Your task to perform on an android device: Search for the best lawnmowers on Lowes.com Image 0: 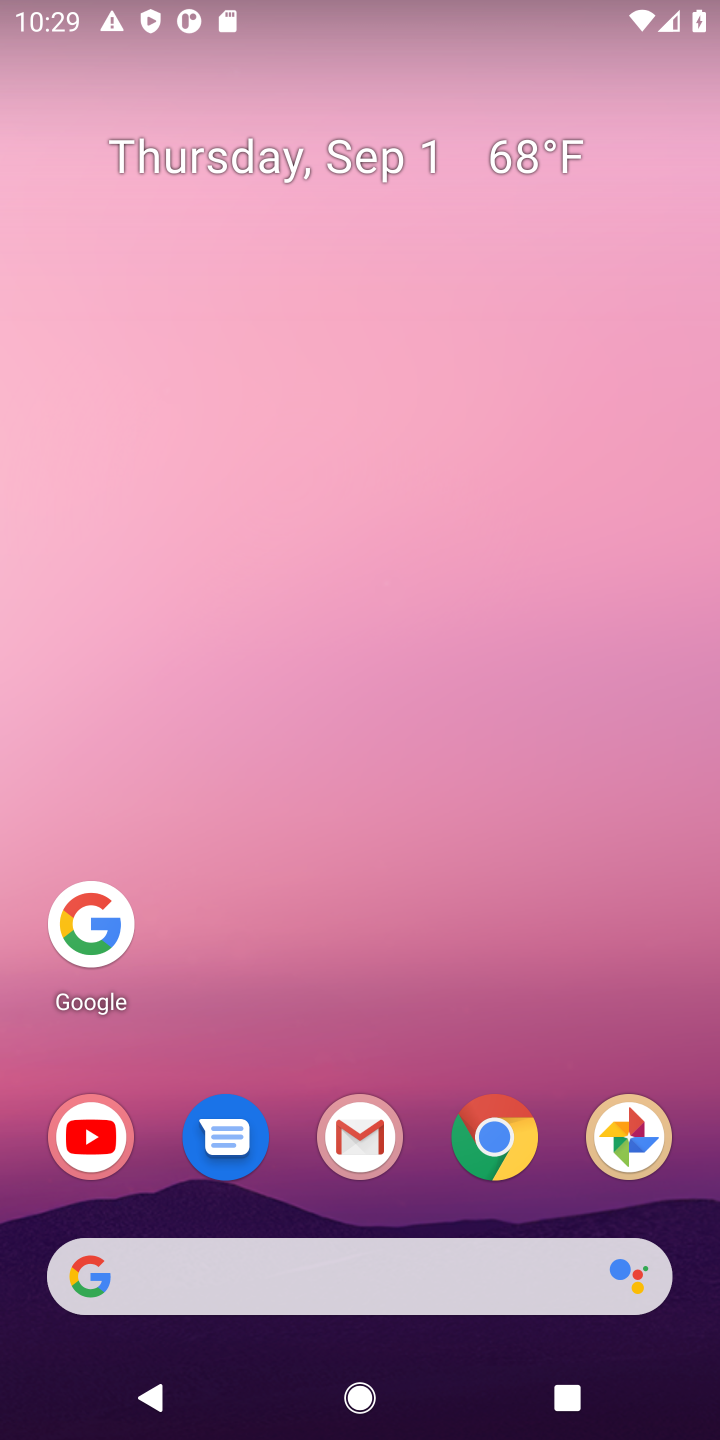
Step 0: click (328, 1275)
Your task to perform on an android device: Search for the best lawnmowers on Lowes.com Image 1: 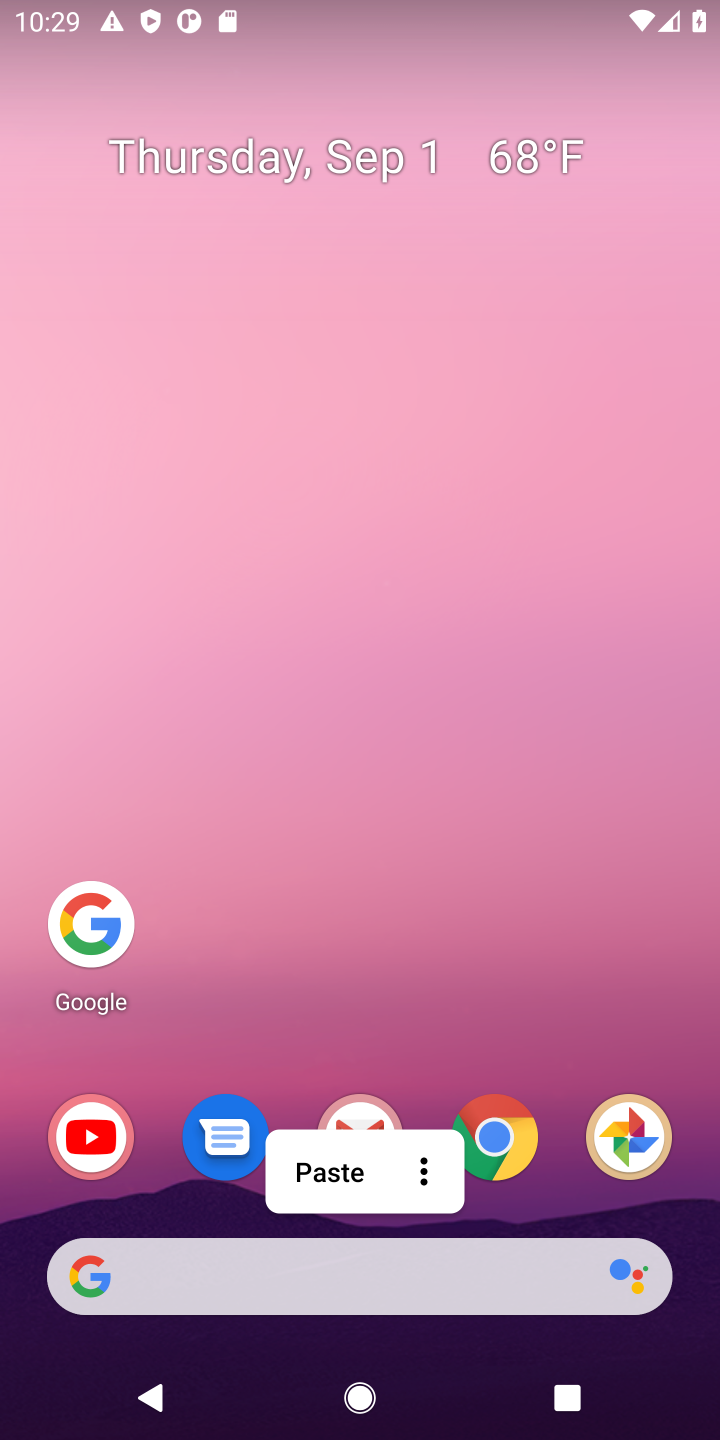
Step 1: click (197, 1246)
Your task to perform on an android device: Search for the best lawnmowers on Lowes.com Image 2: 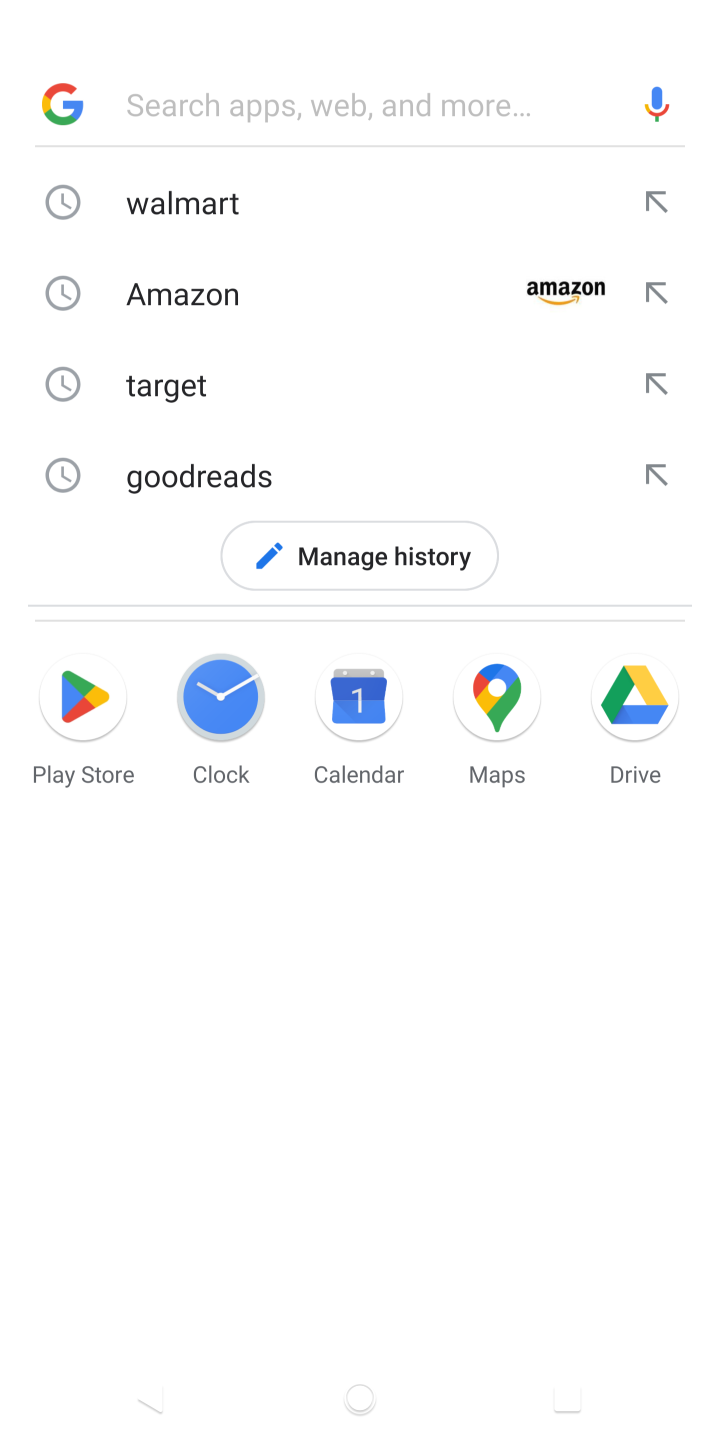
Step 2: click (89, 912)
Your task to perform on an android device: Search for the best lawnmowers on Lowes.com Image 3: 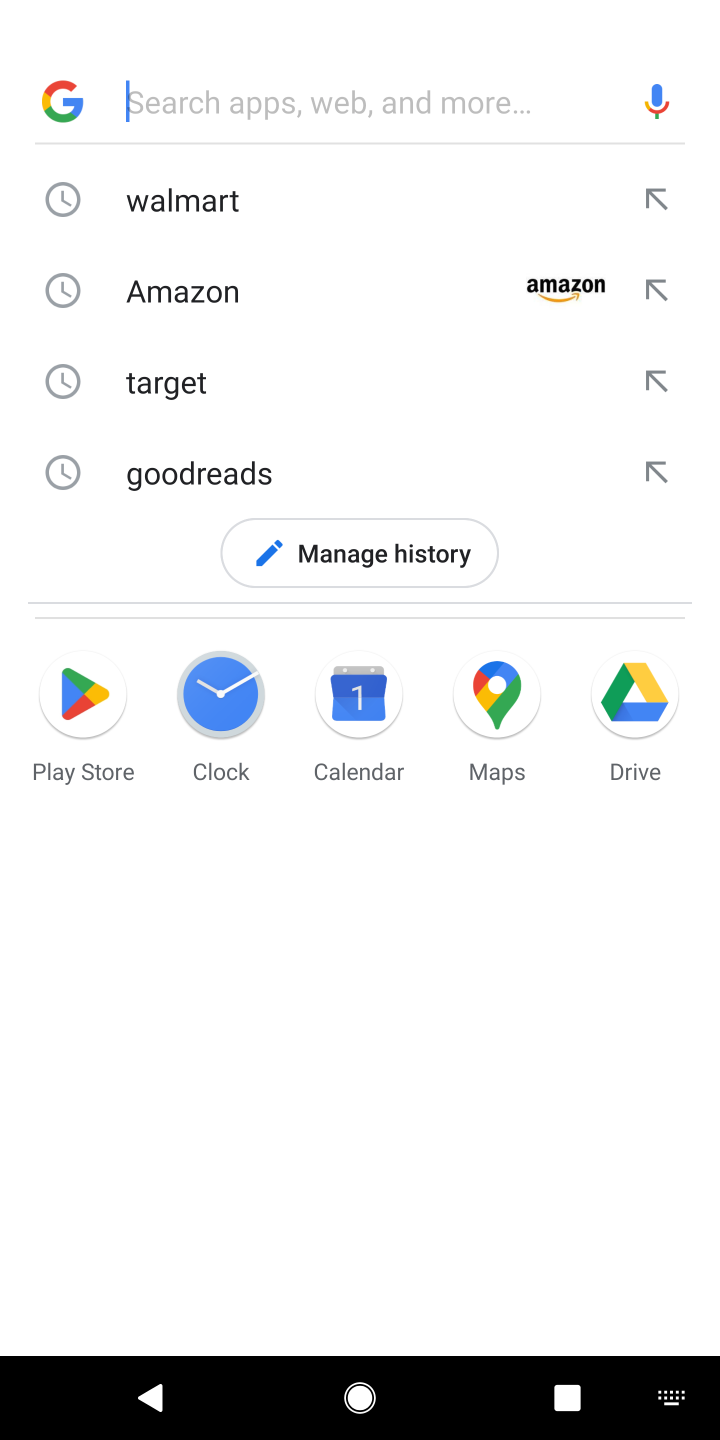
Step 3: click (205, 99)
Your task to perform on an android device: Search for the best lawnmowers on Lowes.com Image 4: 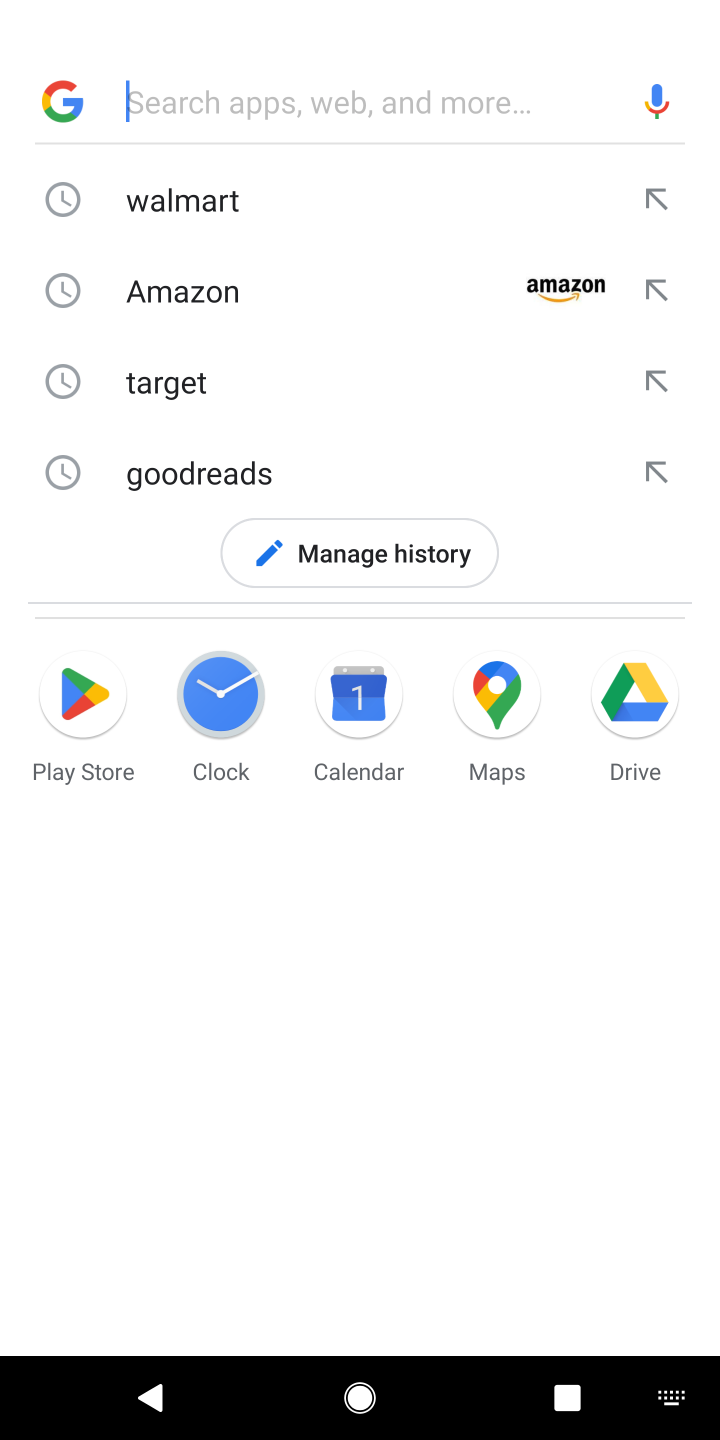
Step 4: type "lowes.com"
Your task to perform on an android device: Search for the best lawnmowers on Lowes.com Image 5: 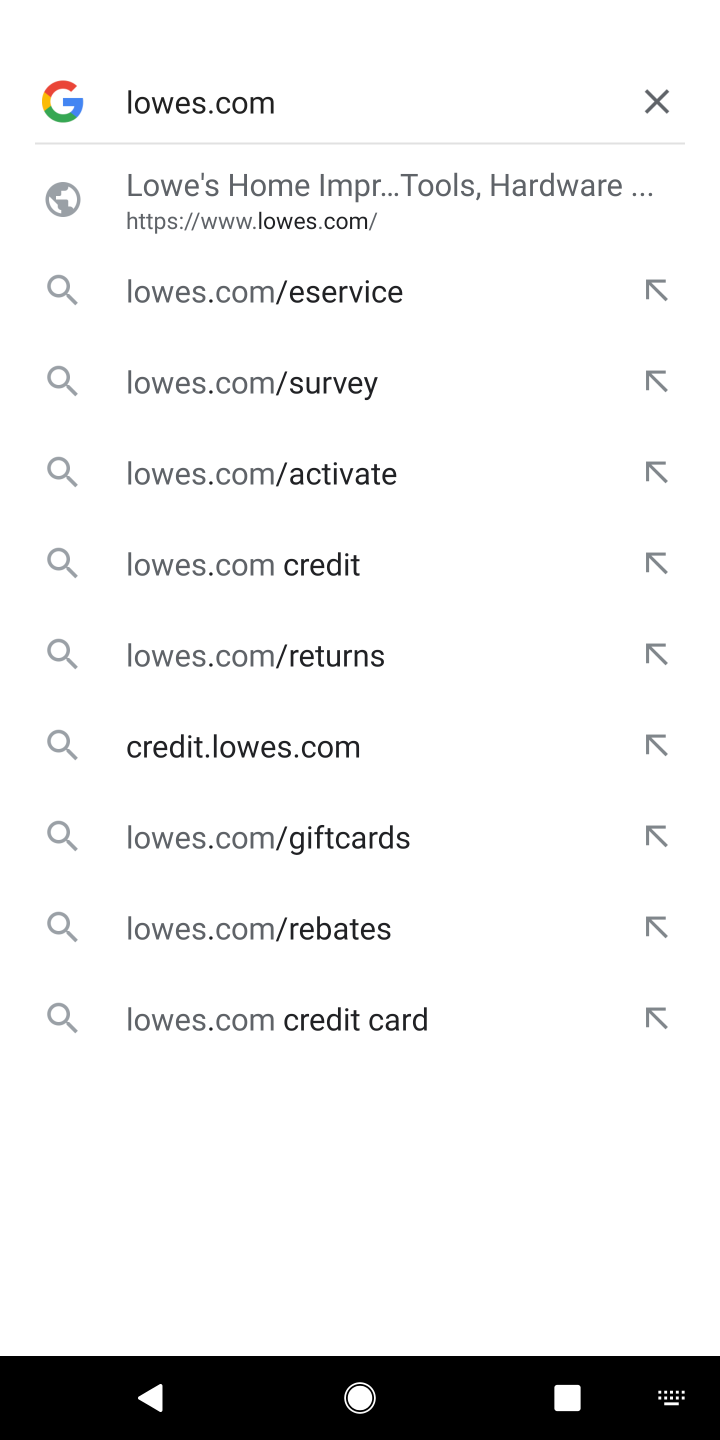
Step 5: click (236, 176)
Your task to perform on an android device: Search for the best lawnmowers on Lowes.com Image 6: 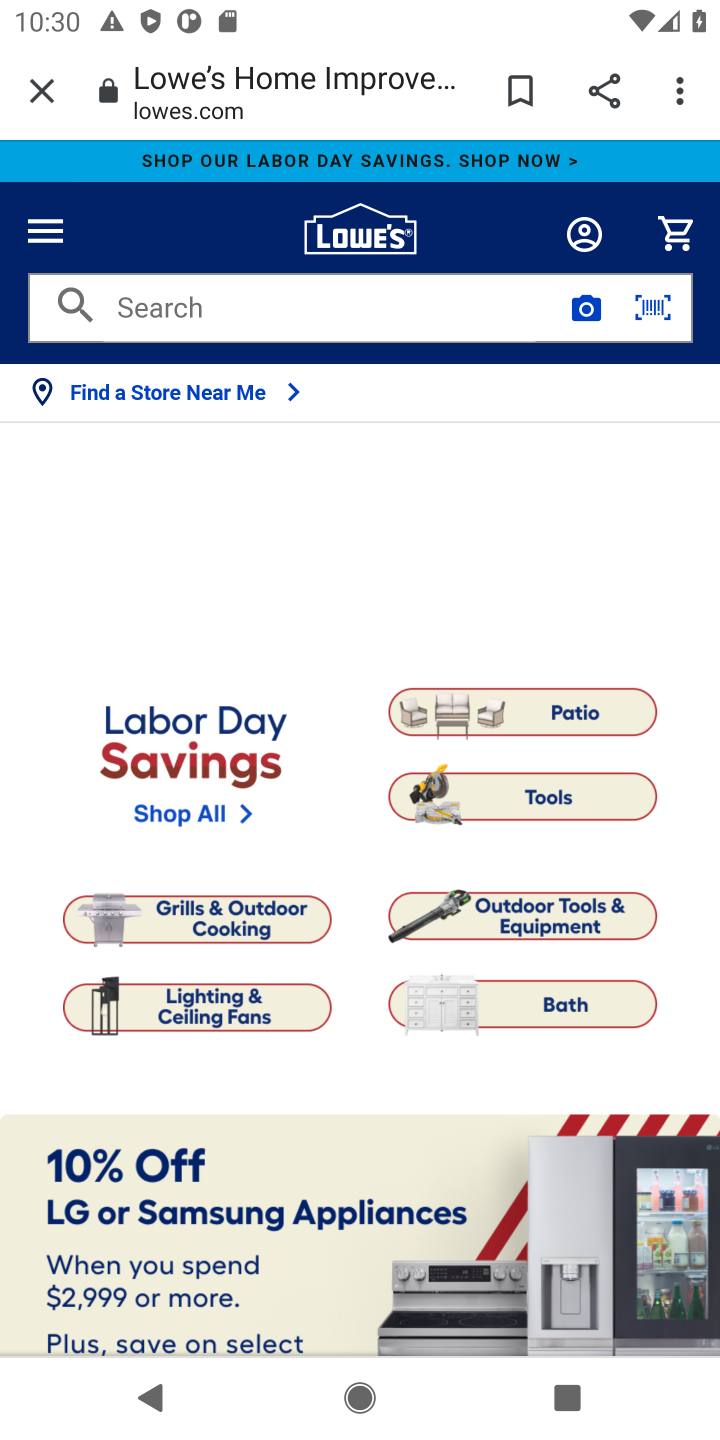
Step 6: click (286, 293)
Your task to perform on an android device: Search for the best lawnmowers on Lowes.com Image 7: 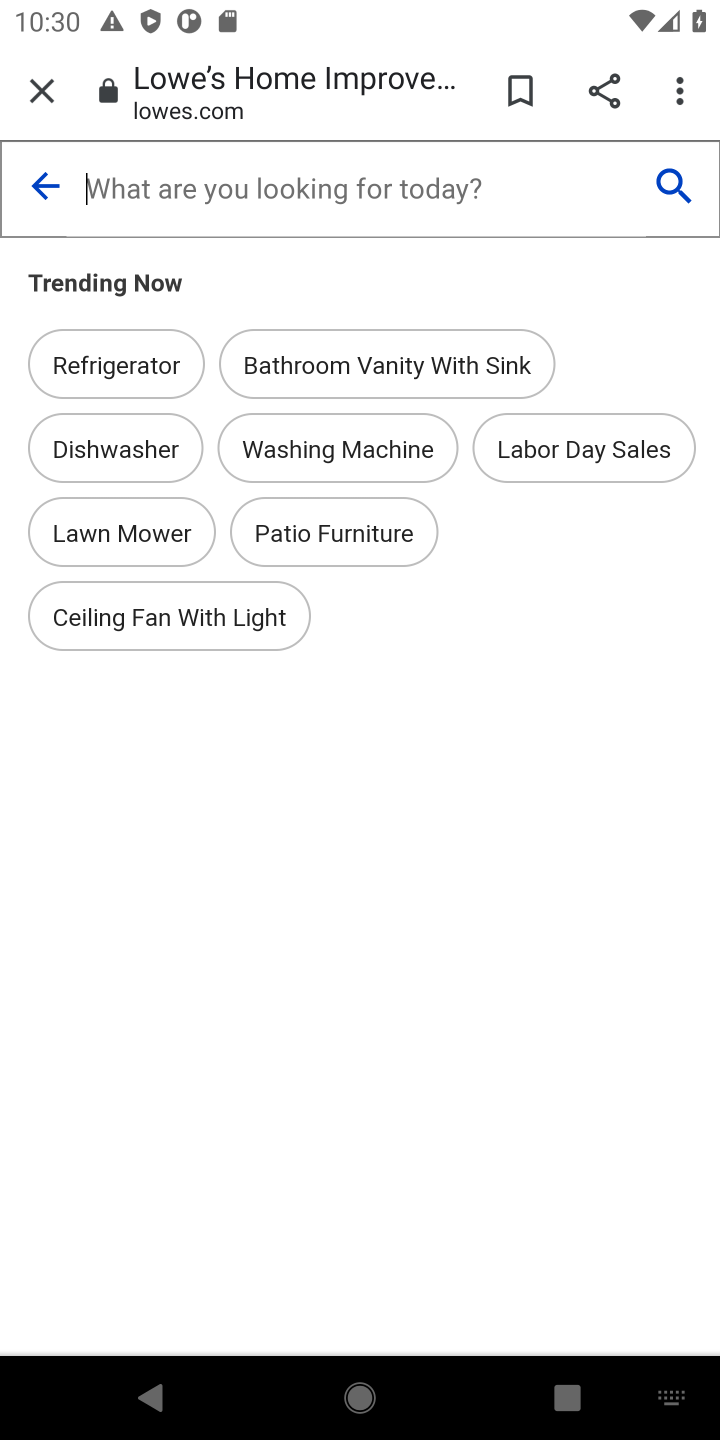
Step 7: type "the best lawnmowers"
Your task to perform on an android device: Search for the best lawnmowers on Lowes.com Image 8: 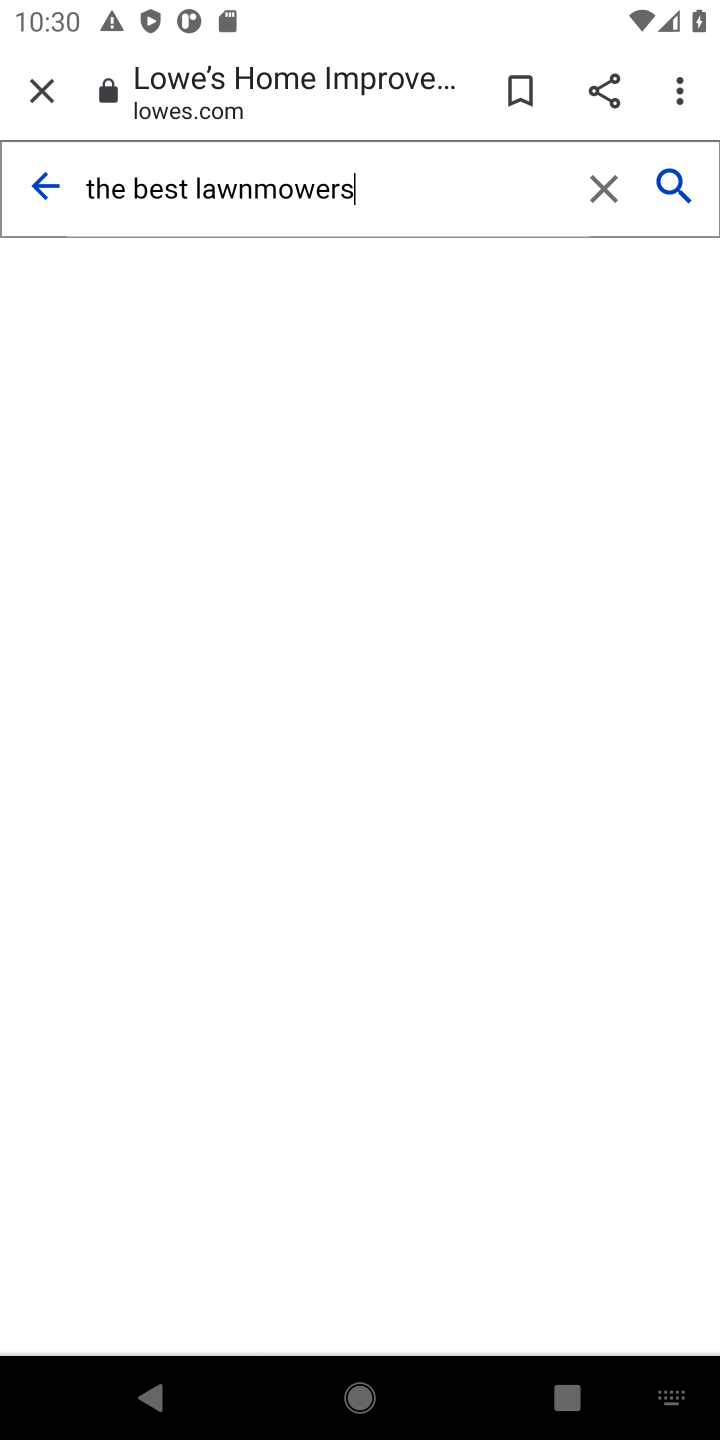
Step 8: click (666, 169)
Your task to perform on an android device: Search for the best lawnmowers on Lowes.com Image 9: 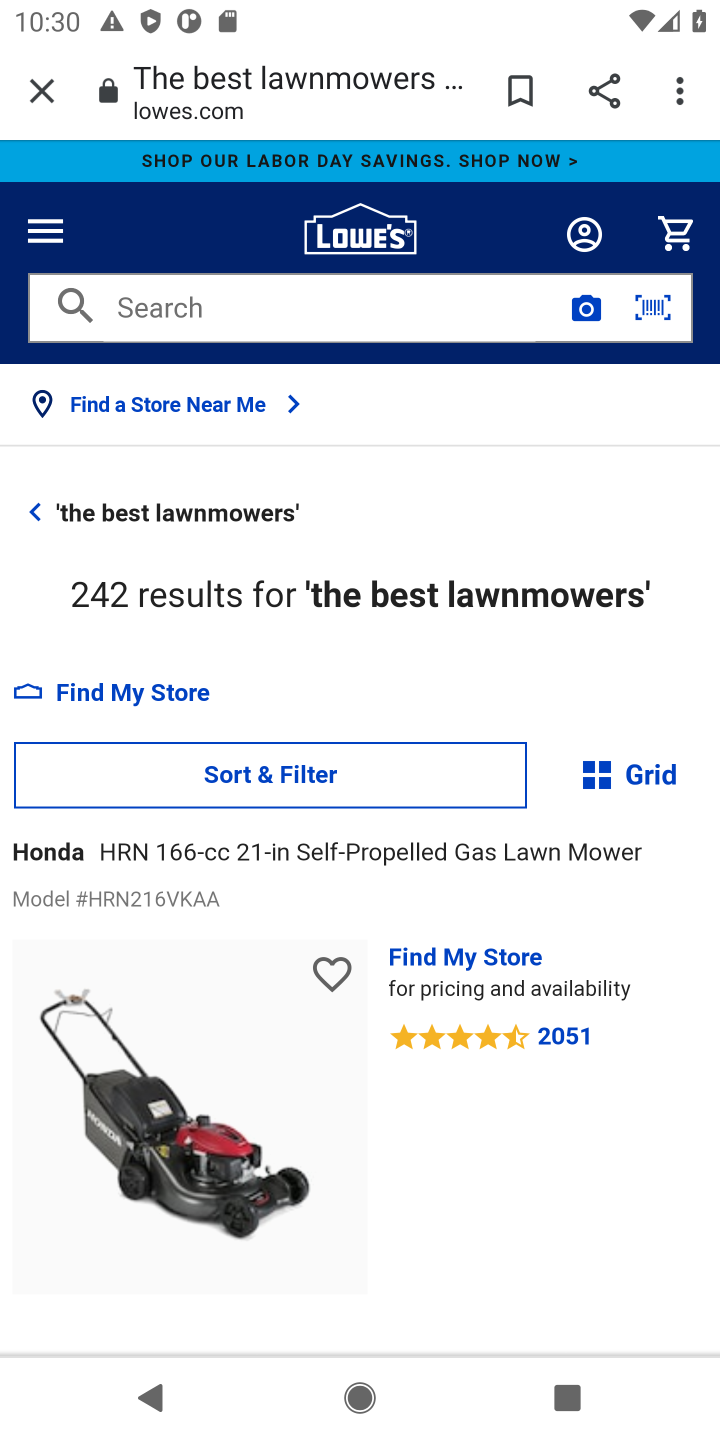
Step 9: task complete